Your task to perform on an android device: install app "Microsoft Excel" Image 0: 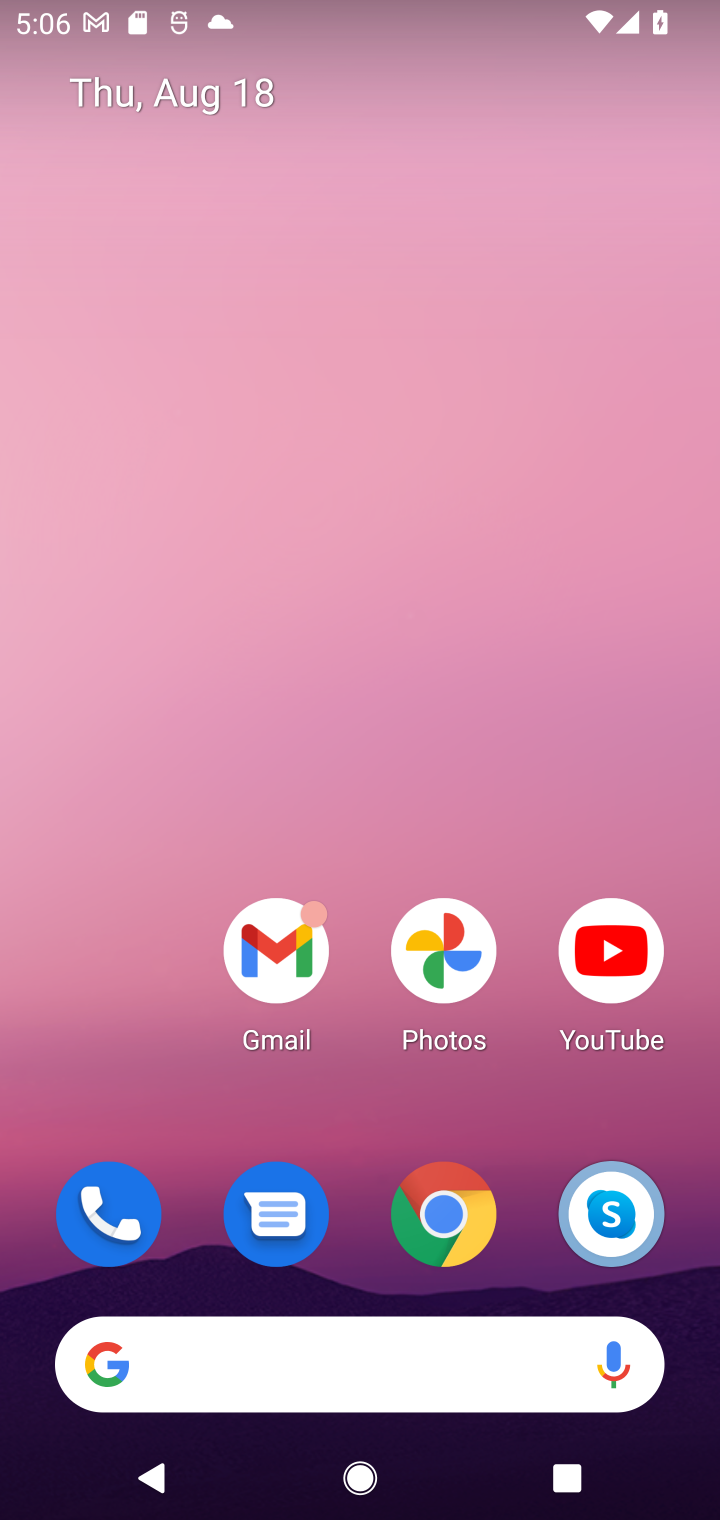
Step 0: drag from (338, 1221) to (373, 115)
Your task to perform on an android device: install app "Microsoft Excel" Image 1: 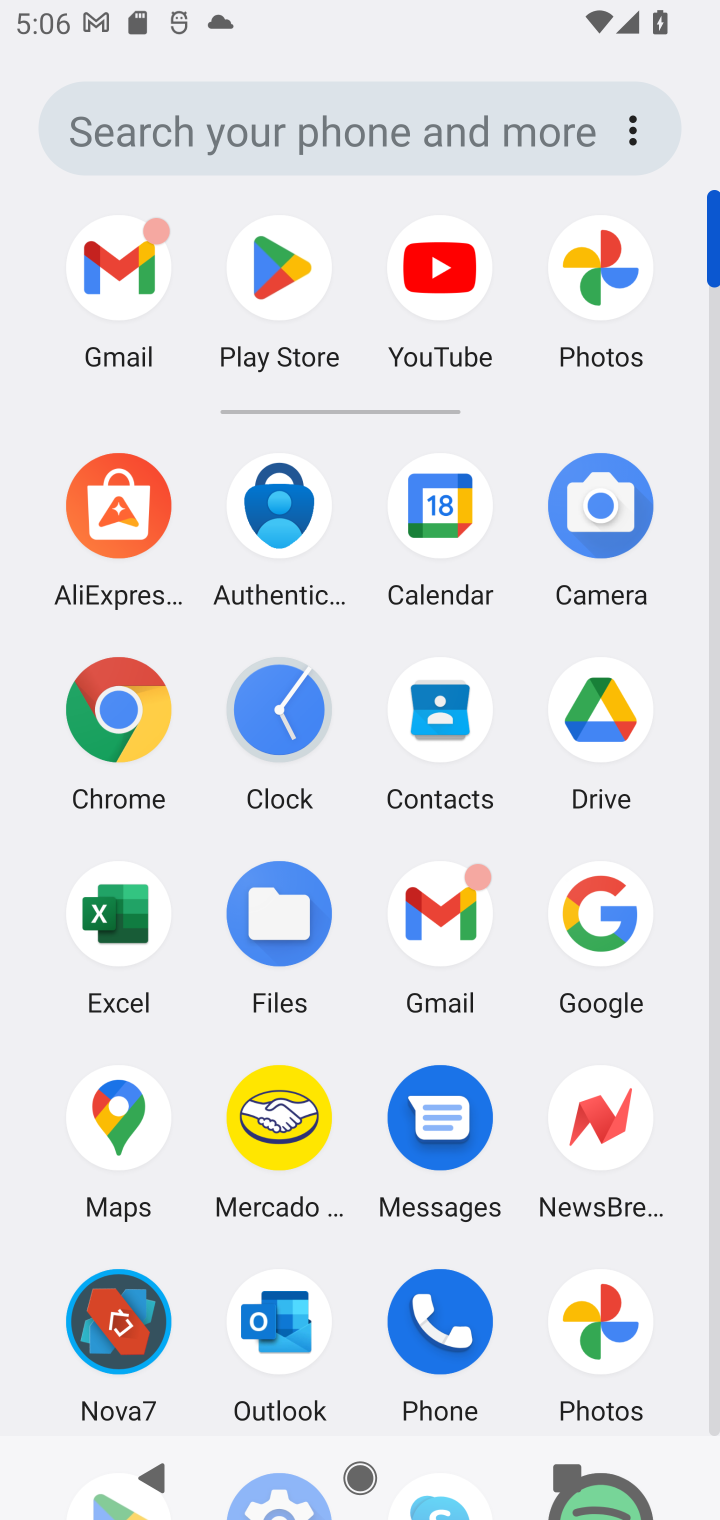
Step 1: click (280, 312)
Your task to perform on an android device: install app "Microsoft Excel" Image 2: 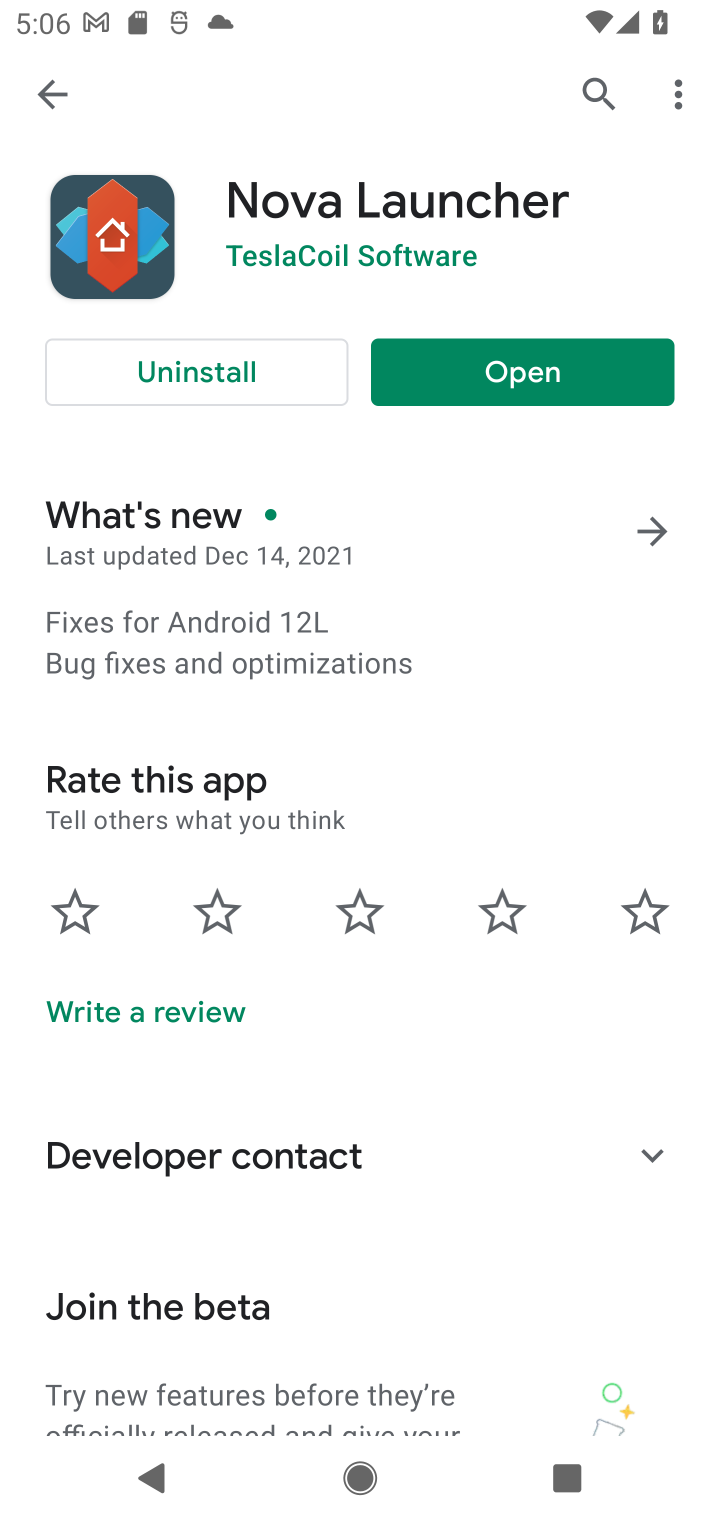
Step 2: click (49, 85)
Your task to perform on an android device: install app "Microsoft Excel" Image 3: 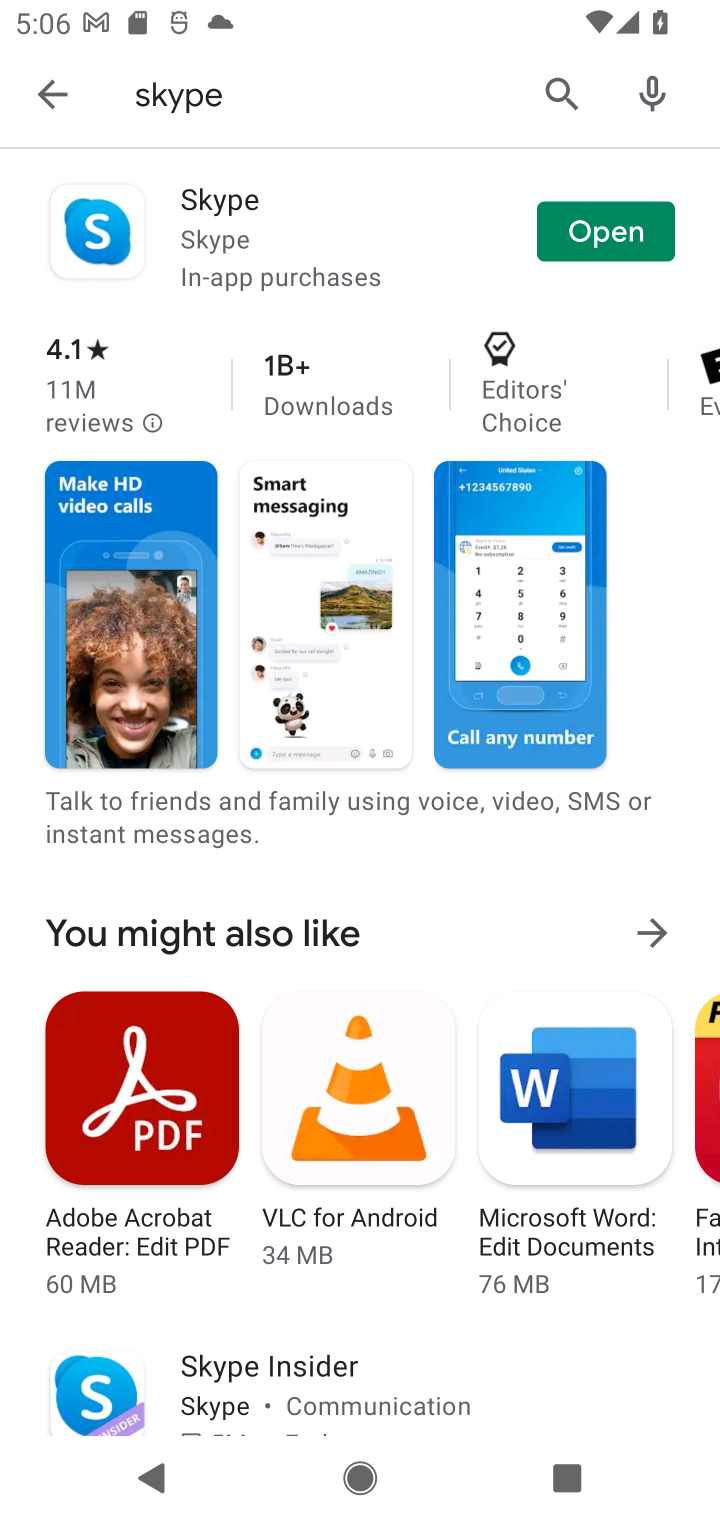
Step 3: click (271, 108)
Your task to perform on an android device: install app "Microsoft Excel" Image 4: 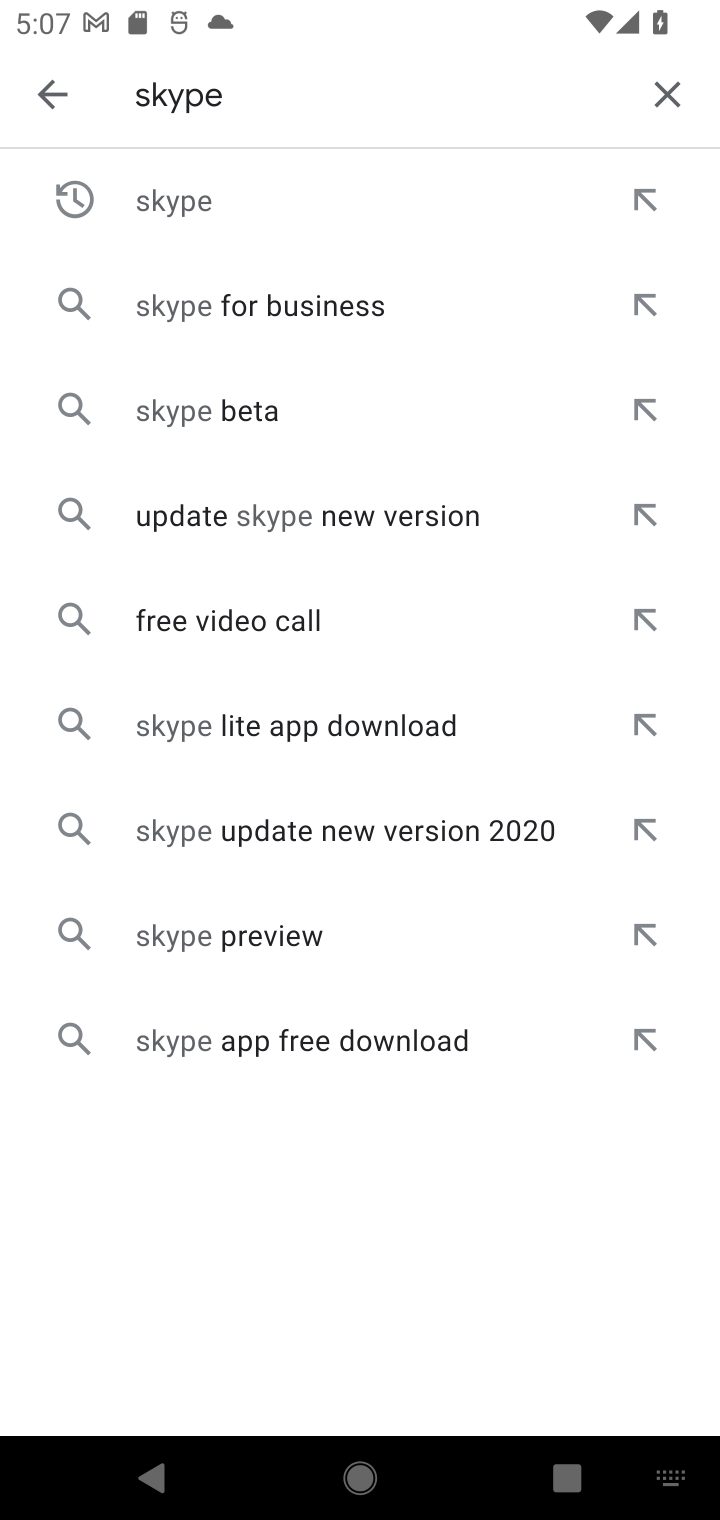
Step 4: click (660, 75)
Your task to perform on an android device: install app "Microsoft Excel" Image 5: 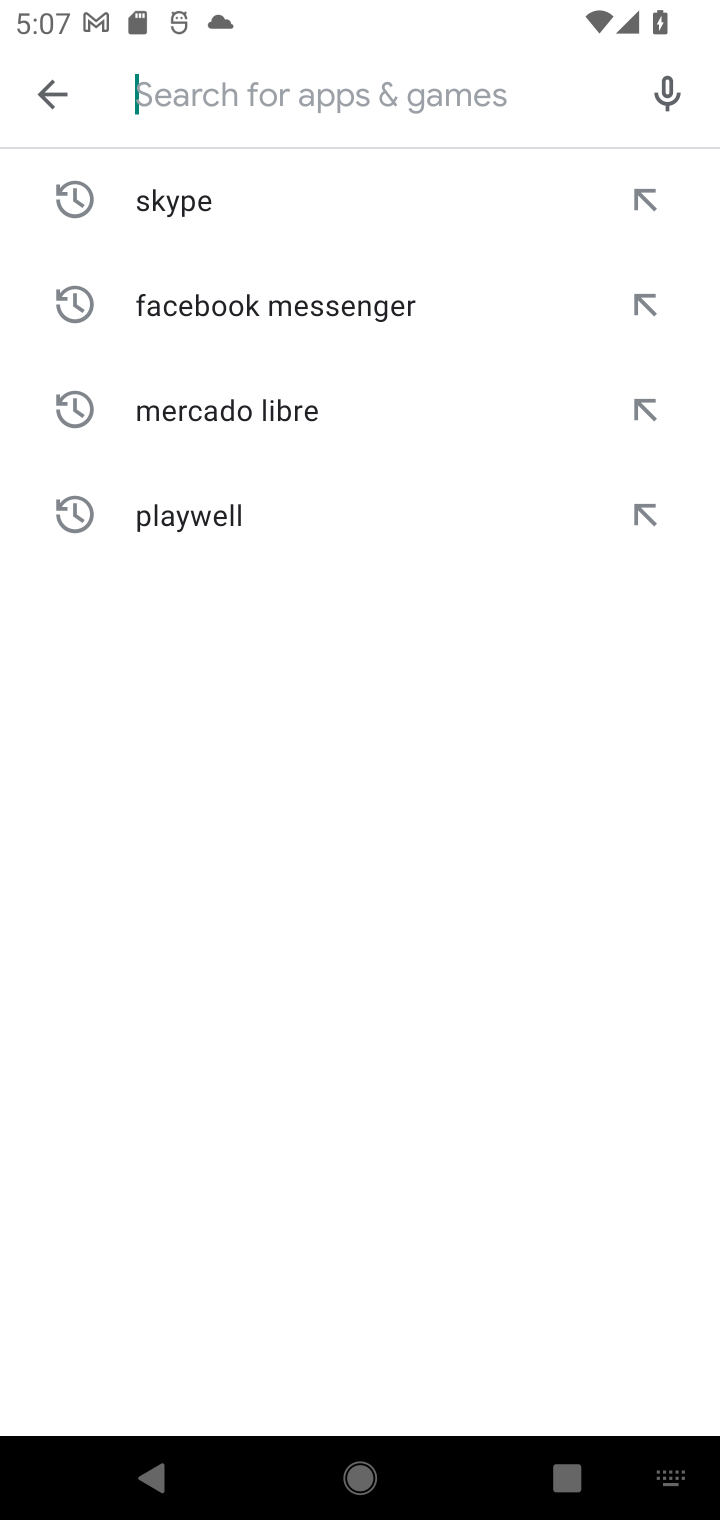
Step 5: type "microsoft excel"
Your task to perform on an android device: install app "Microsoft Excel" Image 6: 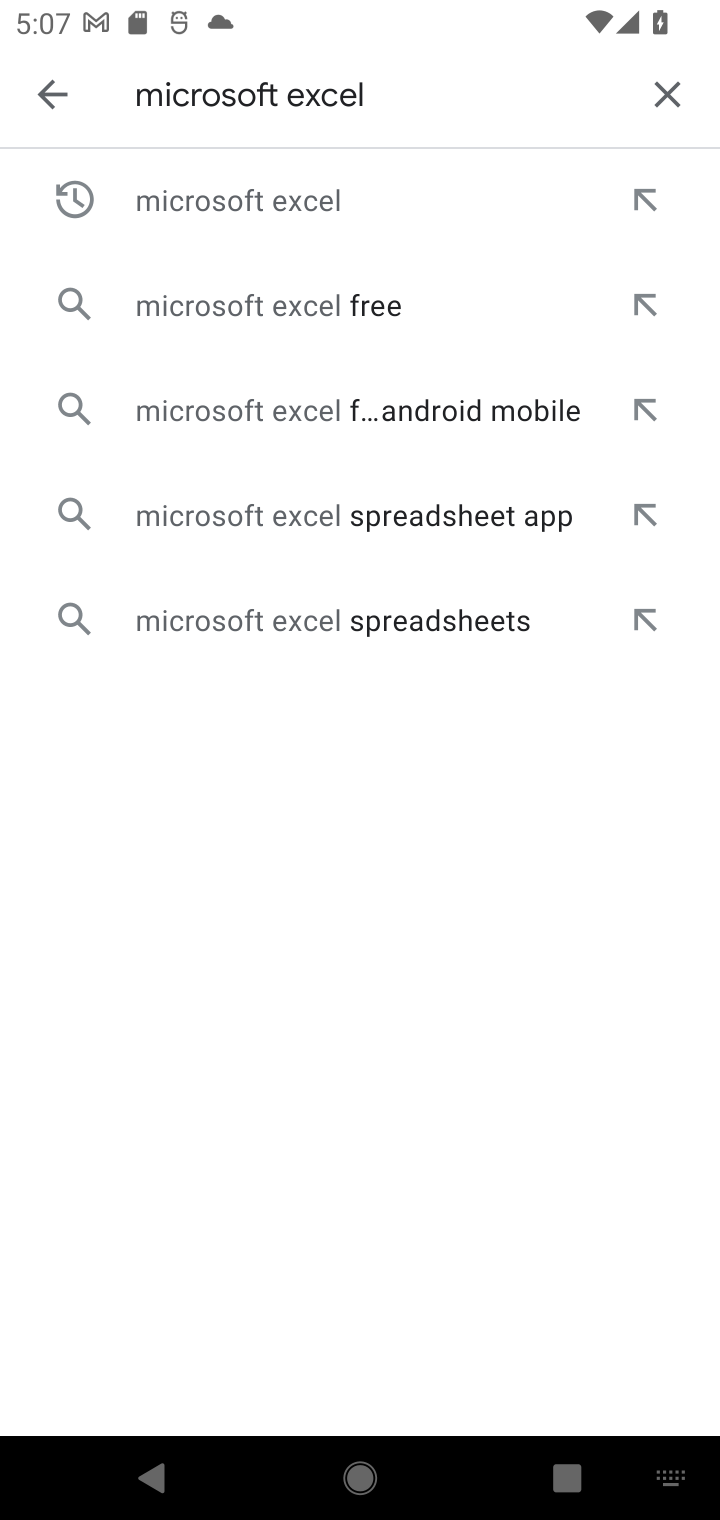
Step 6: click (207, 188)
Your task to perform on an android device: install app "Microsoft Excel" Image 7: 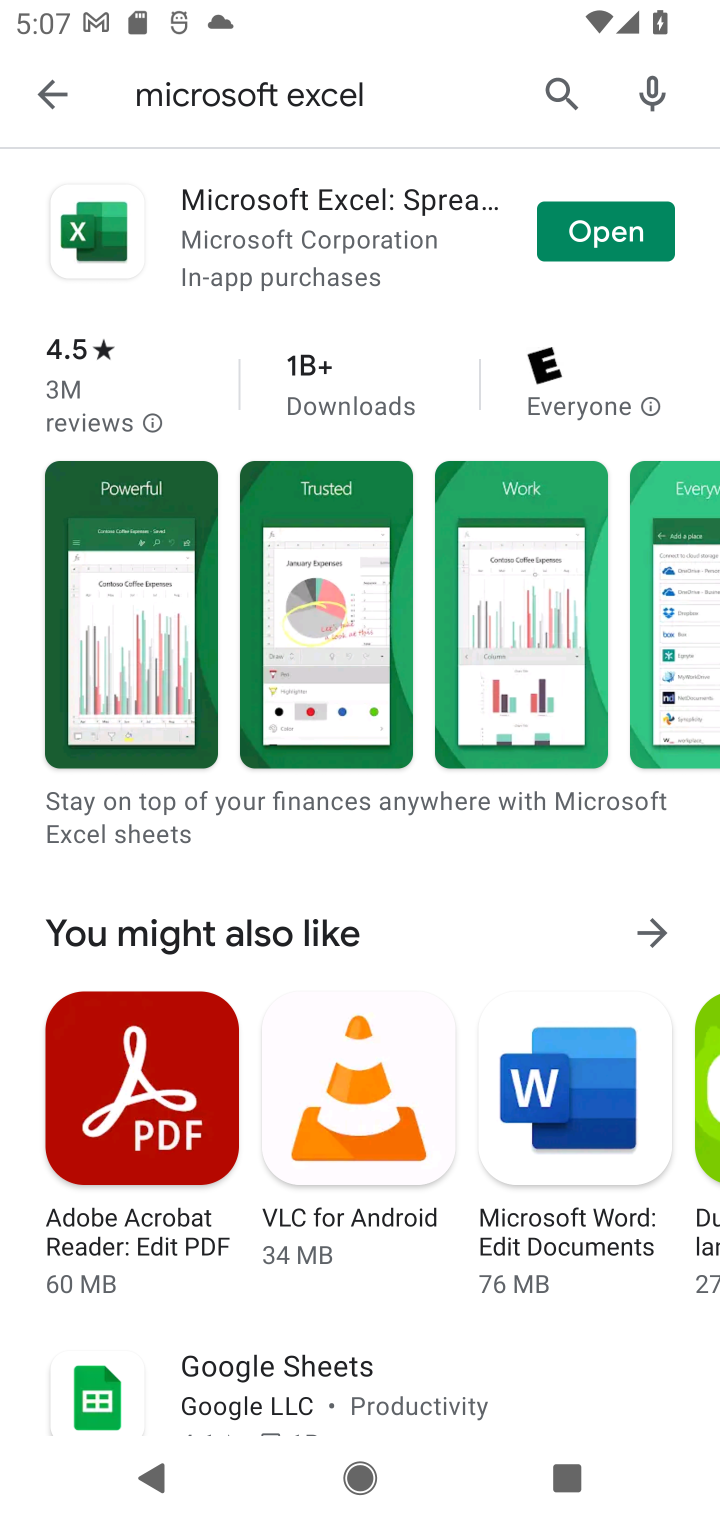
Step 7: task complete